Your task to perform on an android device: change the clock display to show seconds Image 0: 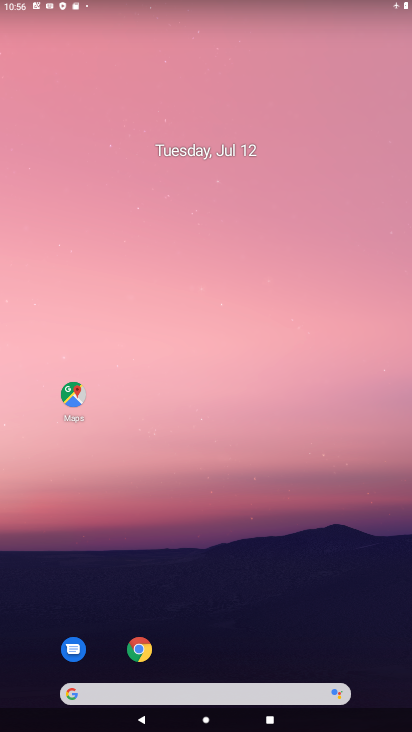
Step 0: drag from (393, 659) to (357, 61)
Your task to perform on an android device: change the clock display to show seconds Image 1: 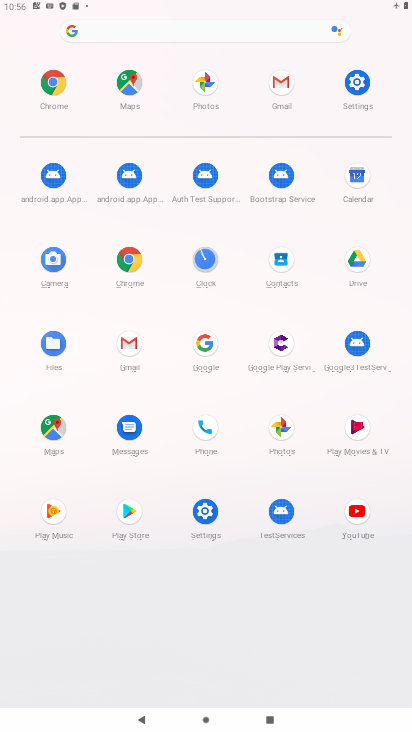
Step 1: click (203, 258)
Your task to perform on an android device: change the clock display to show seconds Image 2: 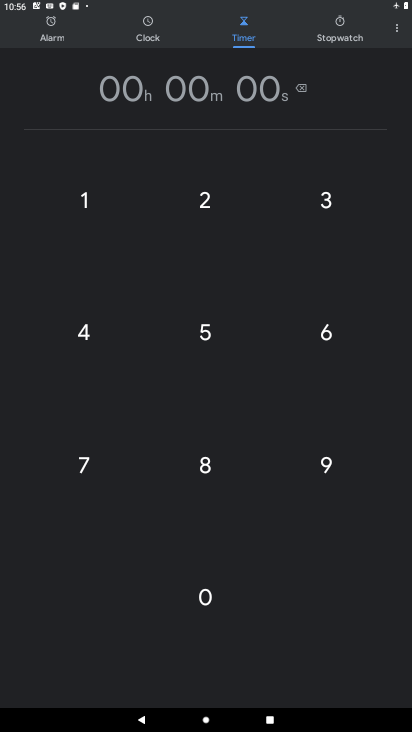
Step 2: click (398, 33)
Your task to perform on an android device: change the clock display to show seconds Image 3: 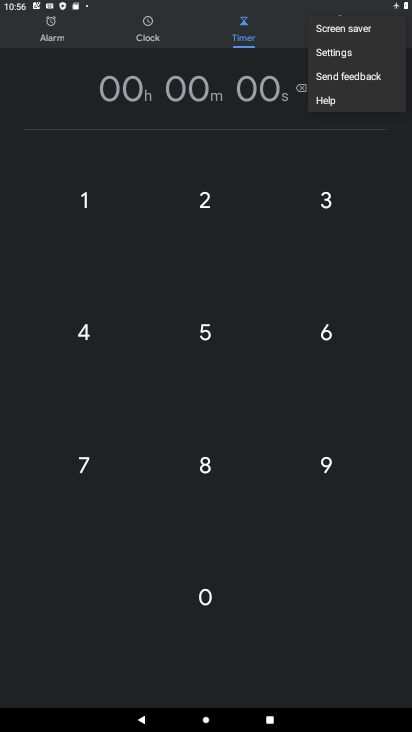
Step 3: click (331, 52)
Your task to perform on an android device: change the clock display to show seconds Image 4: 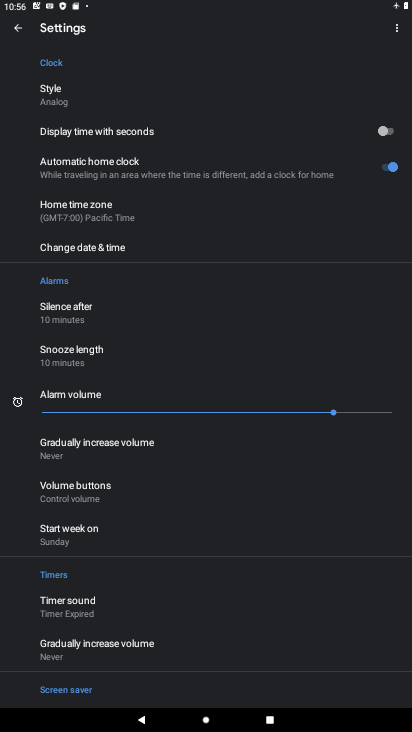
Step 4: click (391, 130)
Your task to perform on an android device: change the clock display to show seconds Image 5: 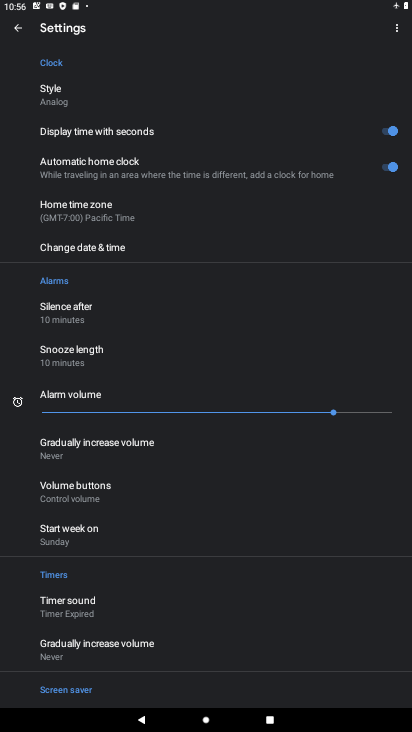
Step 5: task complete